Your task to perform on an android device: Go to location settings Image 0: 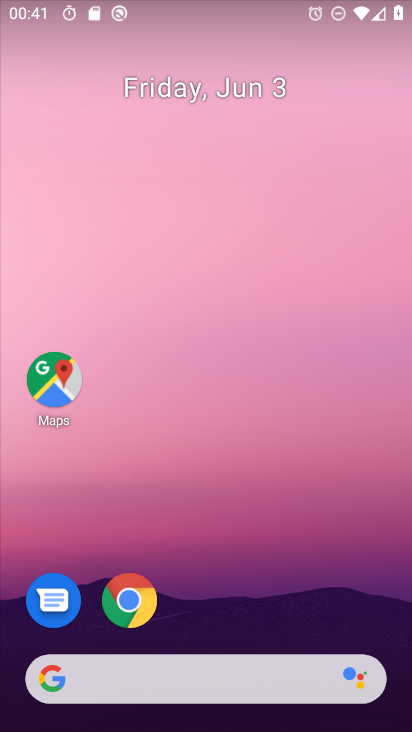
Step 0: drag from (209, 631) to (247, 124)
Your task to perform on an android device: Go to location settings Image 1: 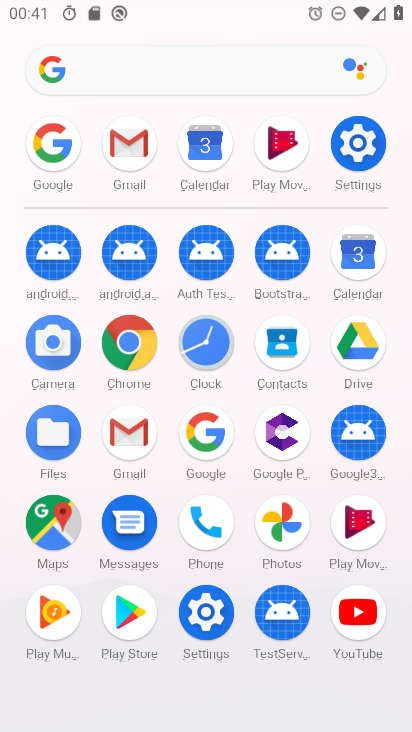
Step 1: click (357, 135)
Your task to perform on an android device: Go to location settings Image 2: 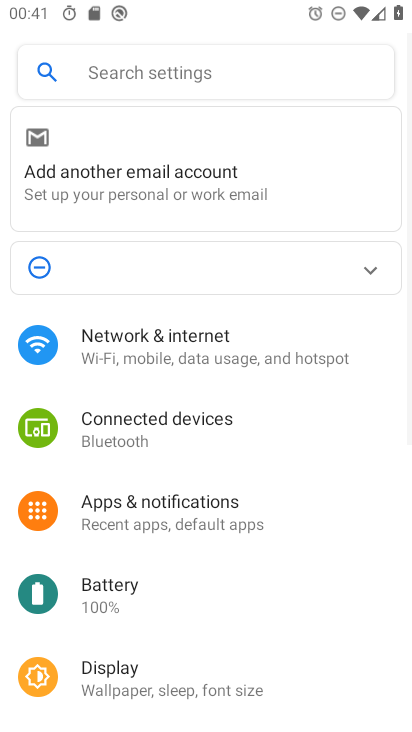
Step 2: drag from (189, 641) to (215, 184)
Your task to perform on an android device: Go to location settings Image 3: 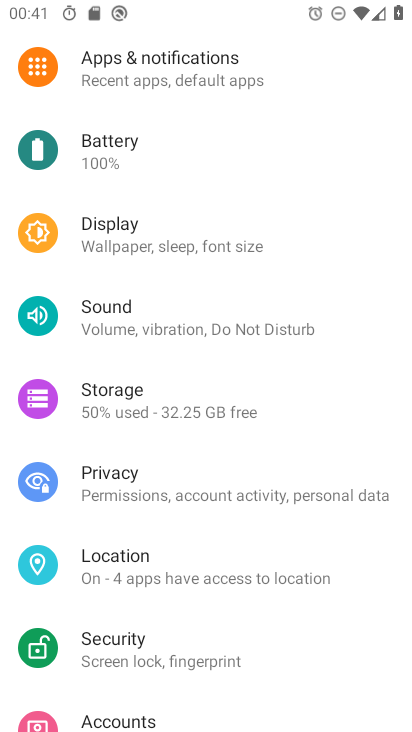
Step 3: click (149, 569)
Your task to perform on an android device: Go to location settings Image 4: 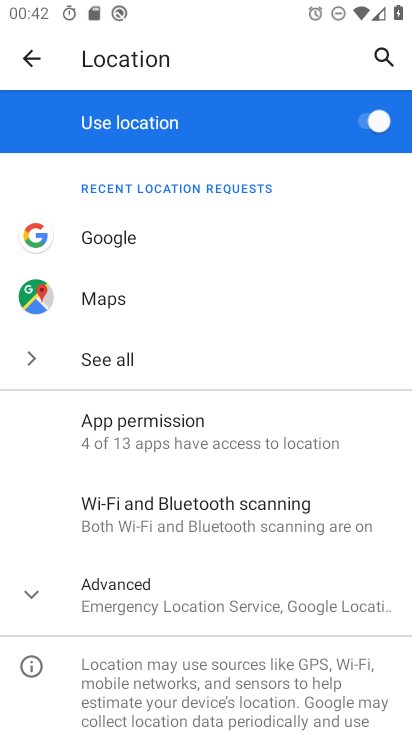
Step 4: task complete